Your task to perform on an android device: Go to internet settings Image 0: 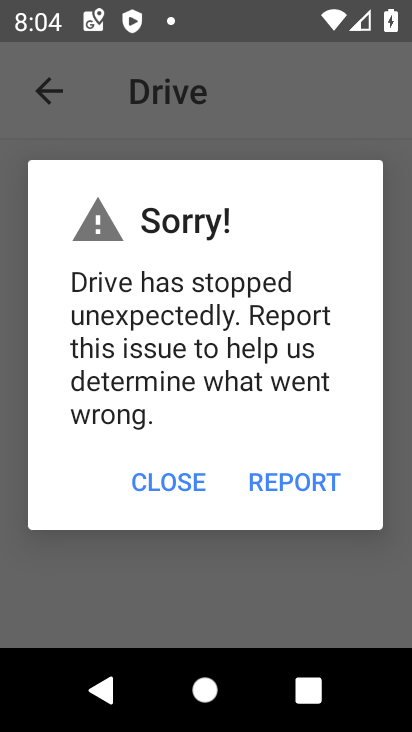
Step 0: press home button
Your task to perform on an android device: Go to internet settings Image 1: 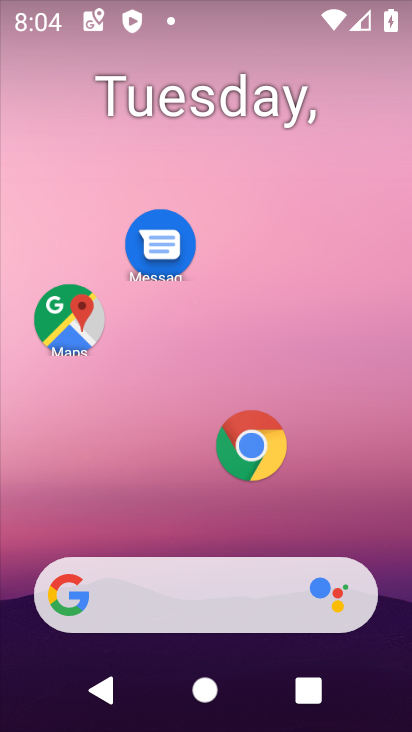
Step 1: drag from (178, 469) to (194, 262)
Your task to perform on an android device: Go to internet settings Image 2: 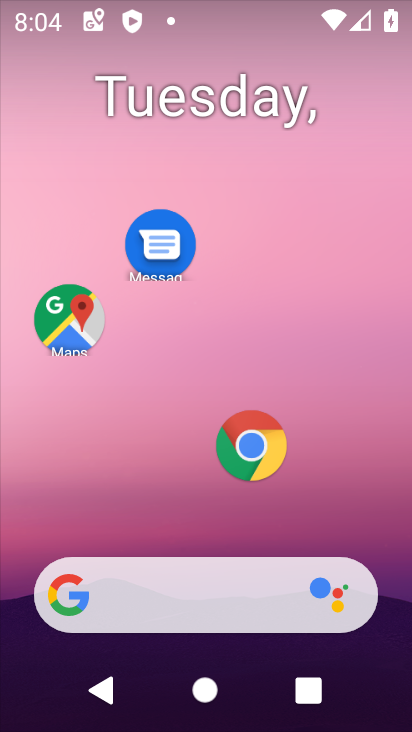
Step 2: click (260, 259)
Your task to perform on an android device: Go to internet settings Image 3: 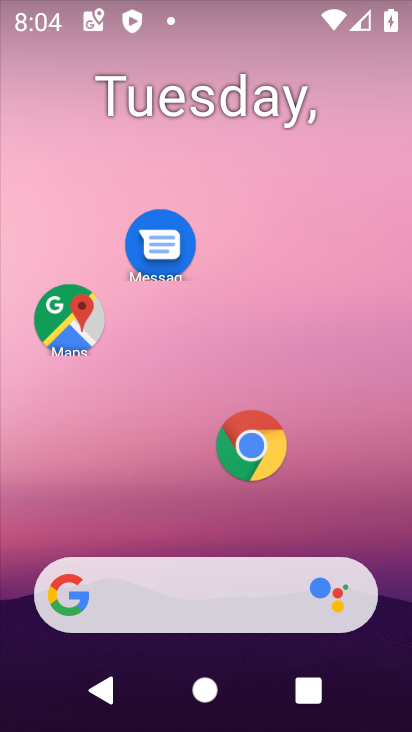
Step 3: drag from (184, 545) to (188, 215)
Your task to perform on an android device: Go to internet settings Image 4: 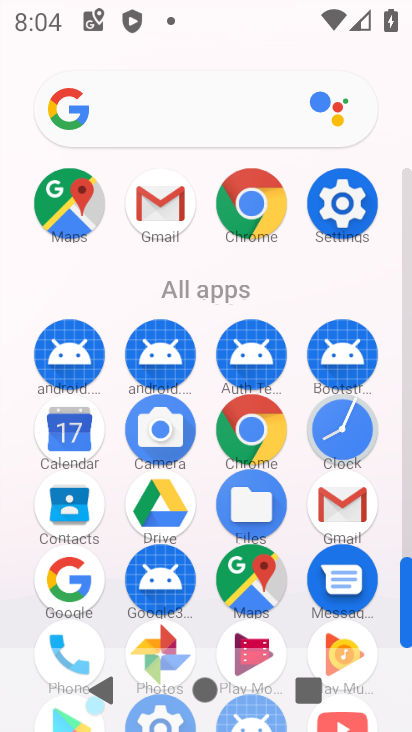
Step 4: click (335, 210)
Your task to perform on an android device: Go to internet settings Image 5: 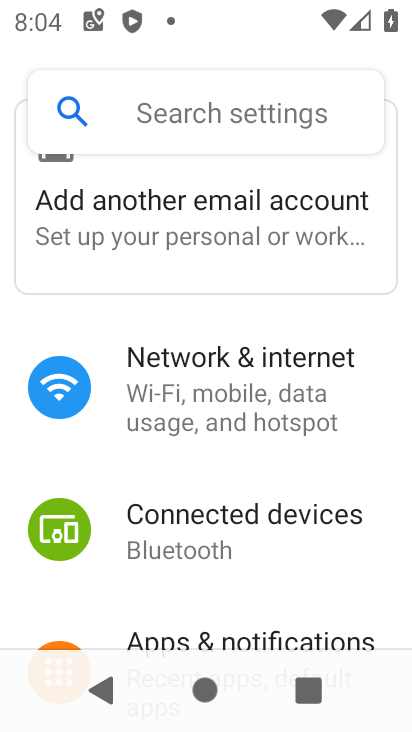
Step 5: click (268, 364)
Your task to perform on an android device: Go to internet settings Image 6: 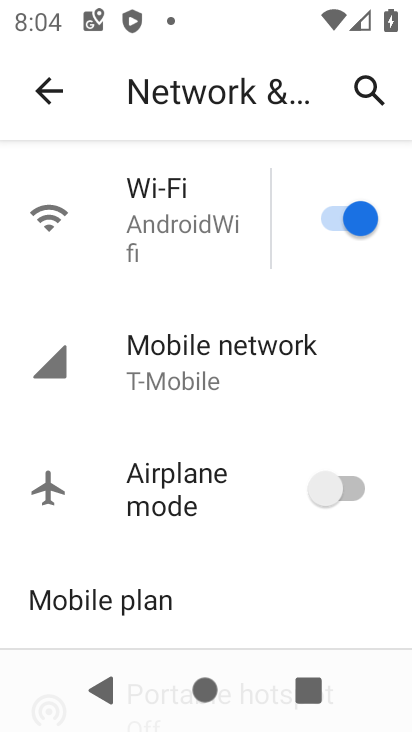
Step 6: drag from (241, 557) to (223, 324)
Your task to perform on an android device: Go to internet settings Image 7: 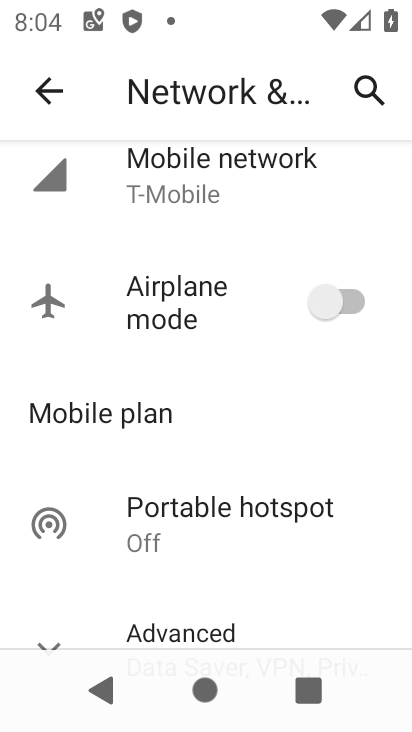
Step 7: drag from (207, 594) to (191, 460)
Your task to perform on an android device: Go to internet settings Image 8: 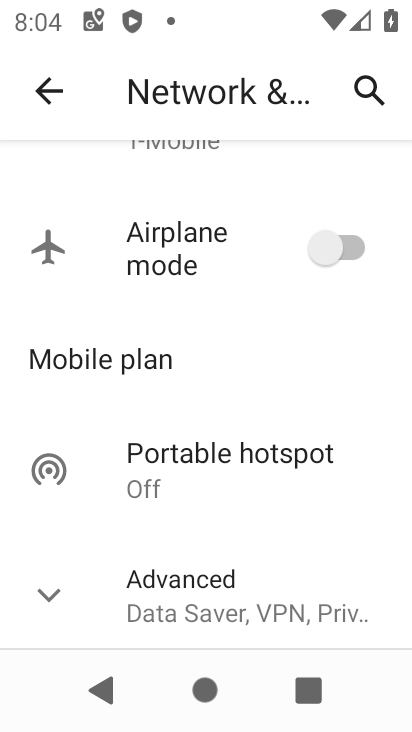
Step 8: click (76, 577)
Your task to perform on an android device: Go to internet settings Image 9: 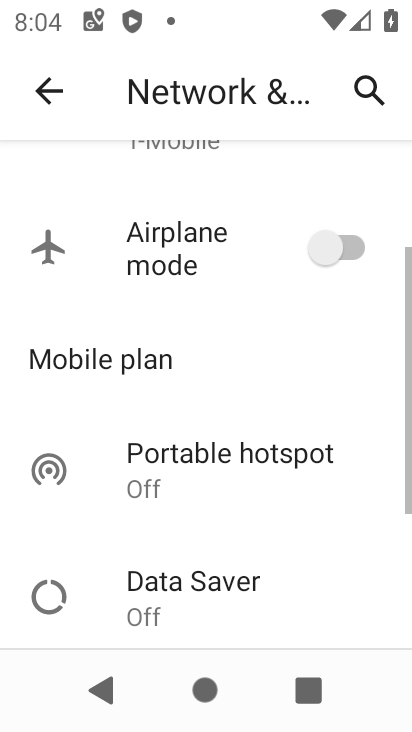
Step 9: task complete